Your task to perform on an android device: toggle airplane mode Image 0: 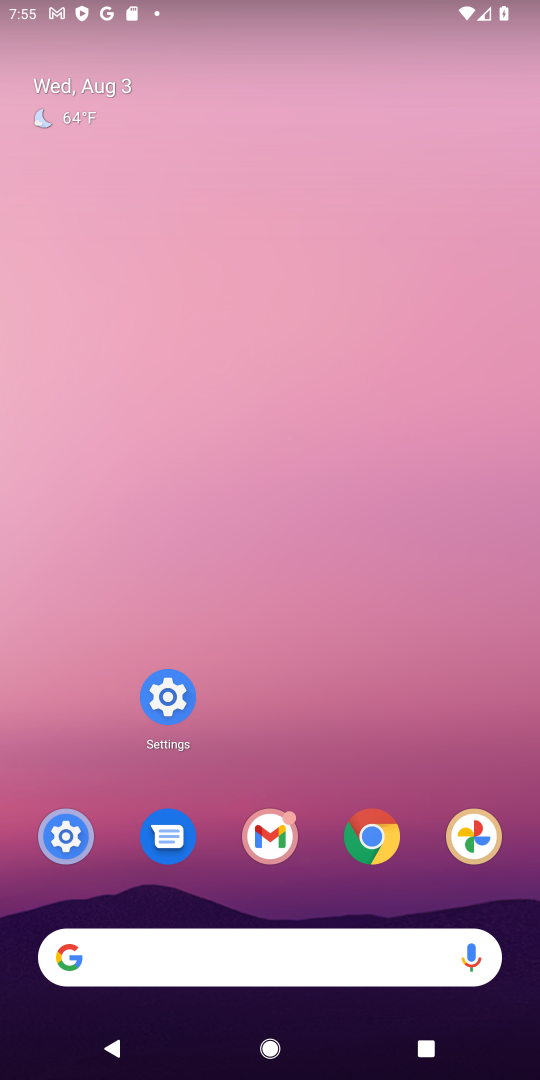
Step 0: drag from (516, 920) to (429, 102)
Your task to perform on an android device: toggle airplane mode Image 1: 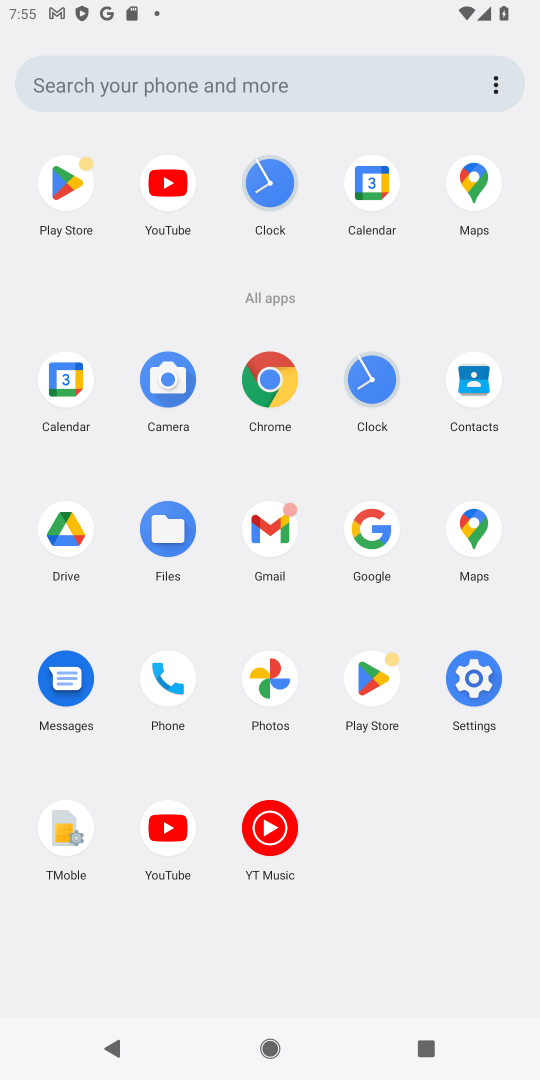
Step 1: click (460, 678)
Your task to perform on an android device: toggle airplane mode Image 2: 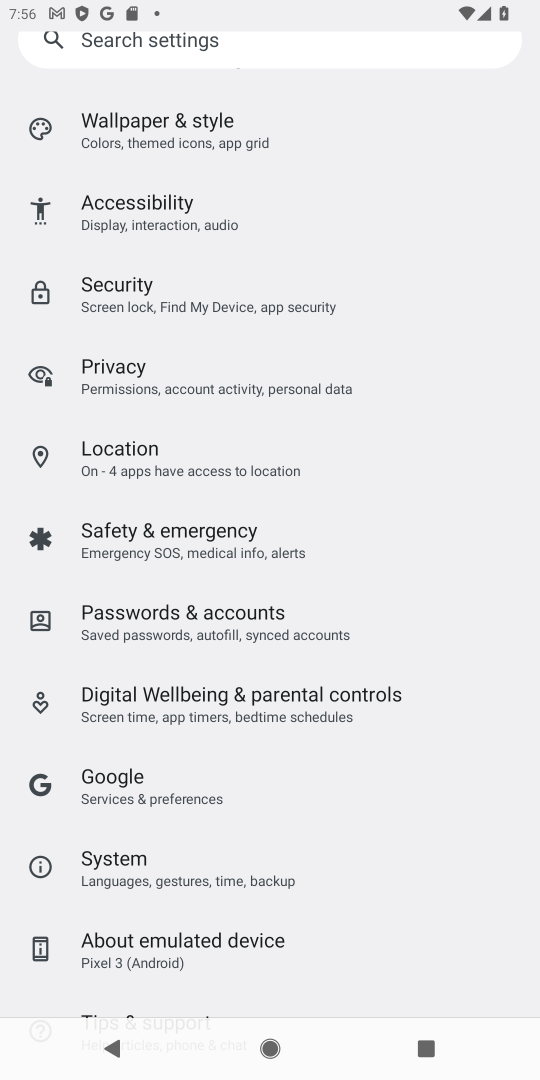
Step 2: drag from (413, 394) to (415, 927)
Your task to perform on an android device: toggle airplane mode Image 3: 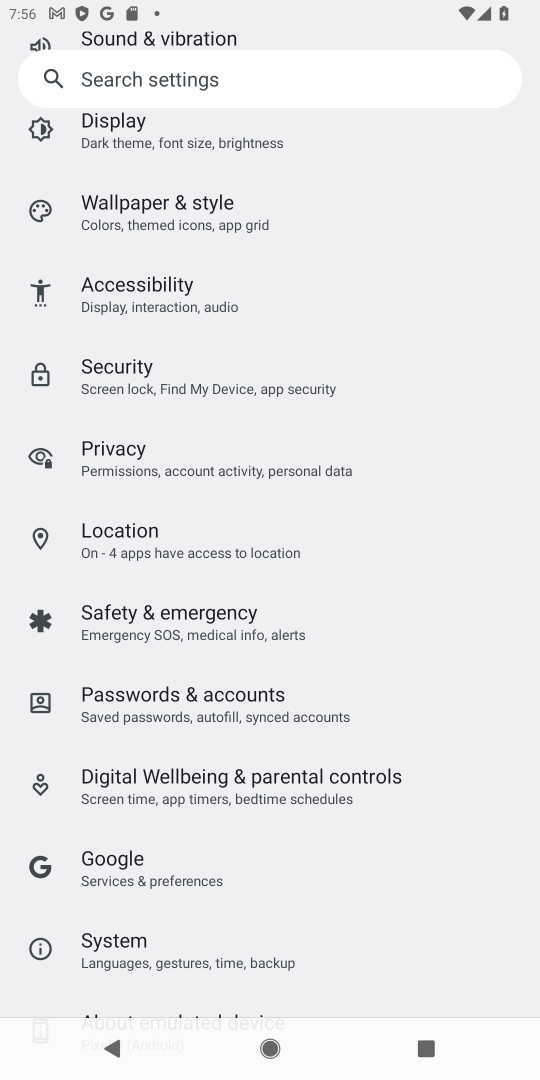
Step 3: drag from (388, 344) to (400, 1035)
Your task to perform on an android device: toggle airplane mode Image 4: 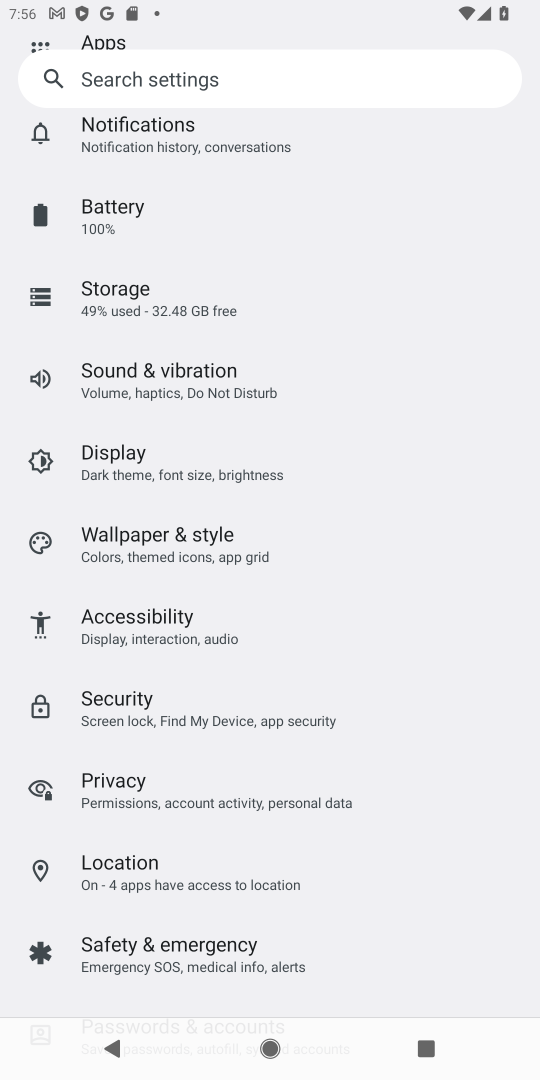
Step 4: drag from (426, 455) to (444, 1041)
Your task to perform on an android device: toggle airplane mode Image 5: 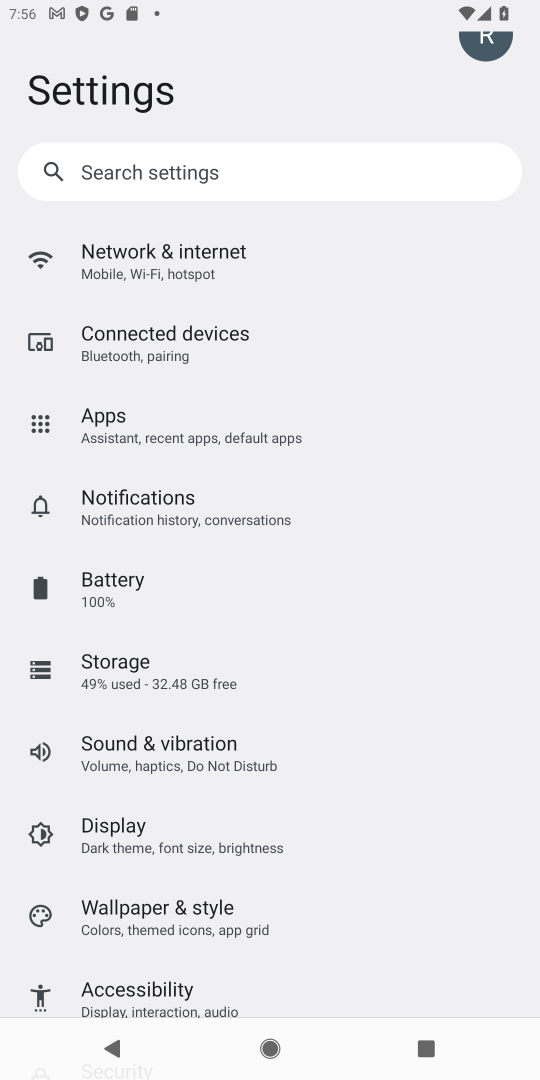
Step 5: click (161, 261)
Your task to perform on an android device: toggle airplane mode Image 6: 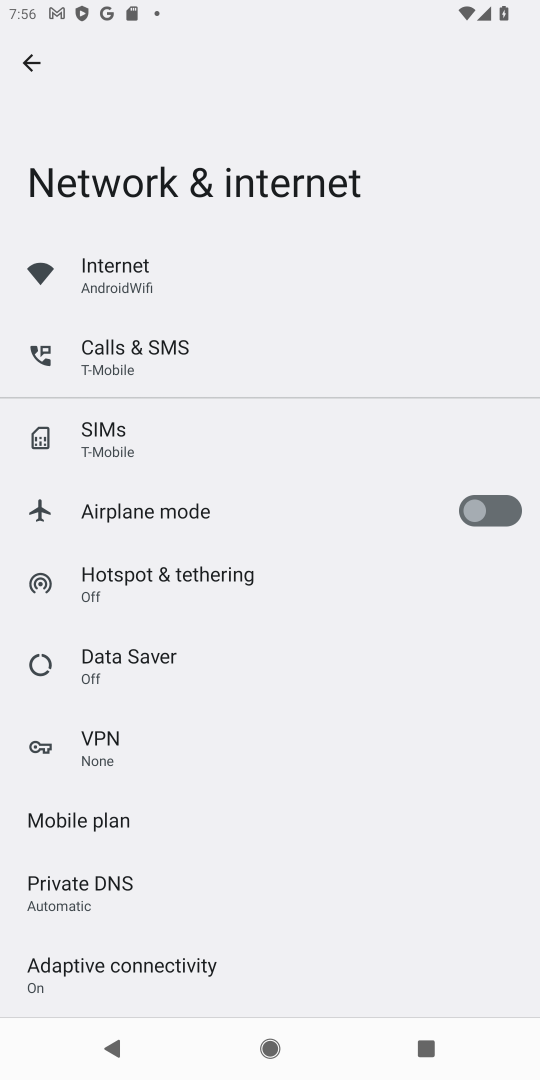
Step 6: click (494, 517)
Your task to perform on an android device: toggle airplane mode Image 7: 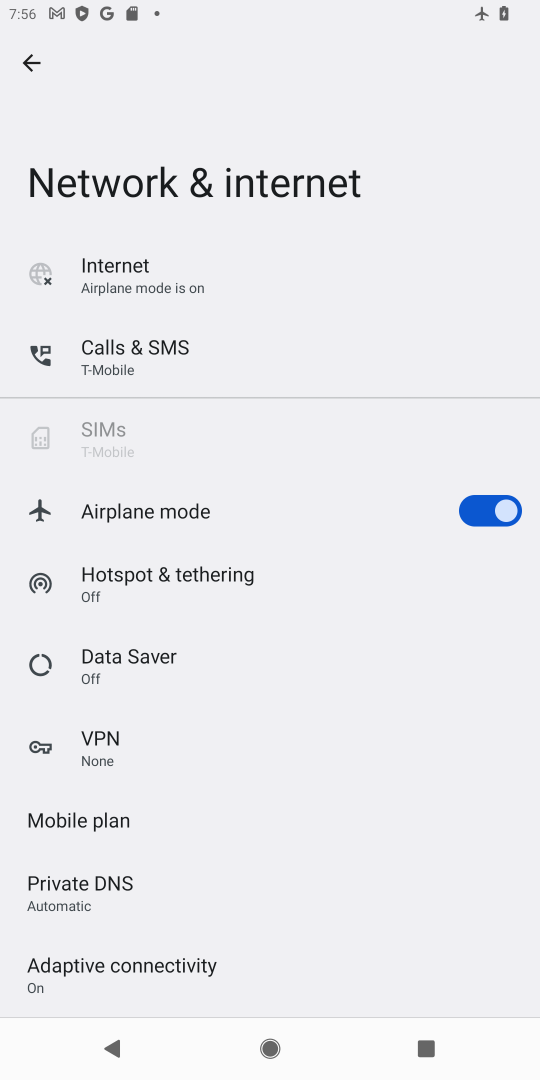
Step 7: task complete